Your task to perform on an android device: Open Android settings Image 0: 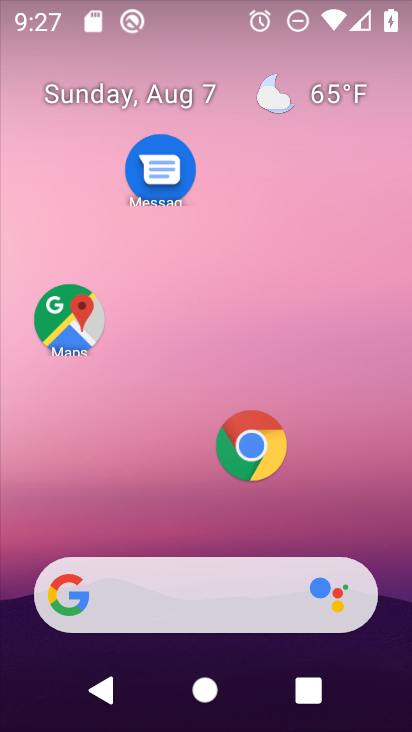
Step 0: press home button
Your task to perform on an android device: Open Android settings Image 1: 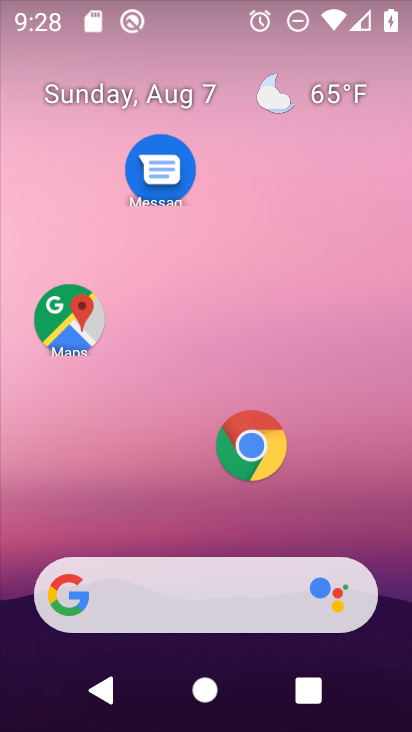
Step 1: drag from (205, 520) to (241, 2)
Your task to perform on an android device: Open Android settings Image 2: 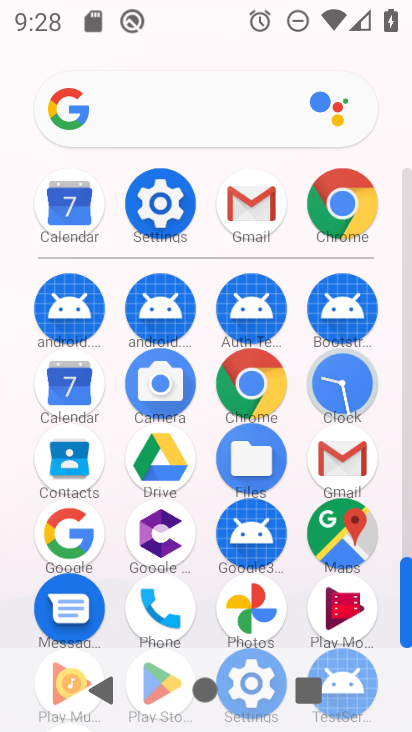
Step 2: click (159, 195)
Your task to perform on an android device: Open Android settings Image 3: 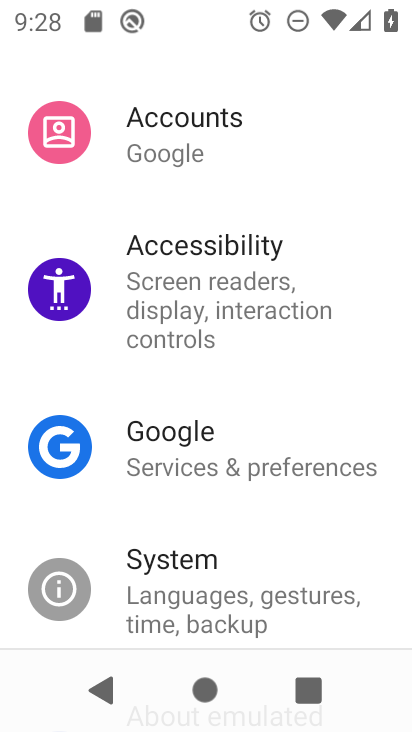
Step 3: drag from (244, 599) to (216, 91)
Your task to perform on an android device: Open Android settings Image 4: 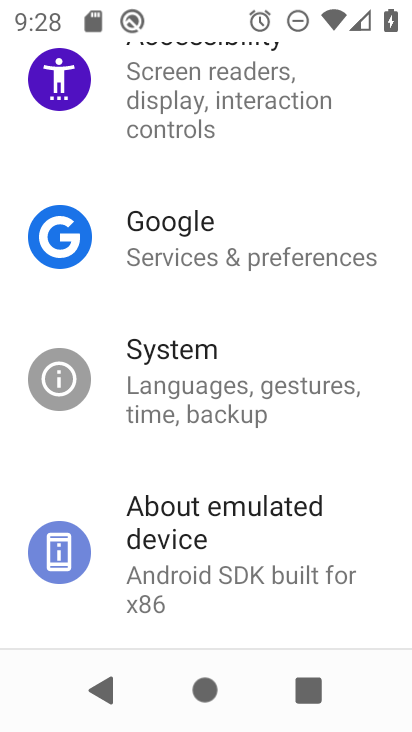
Step 4: click (105, 552)
Your task to perform on an android device: Open Android settings Image 5: 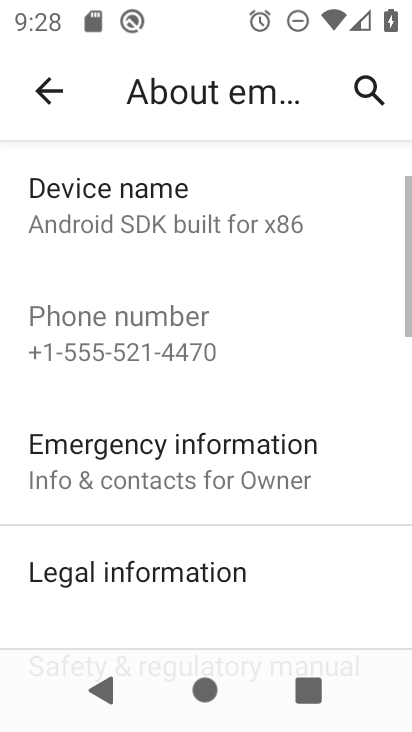
Step 5: task complete